Your task to perform on an android device: install app "Microsoft Outlook" Image 0: 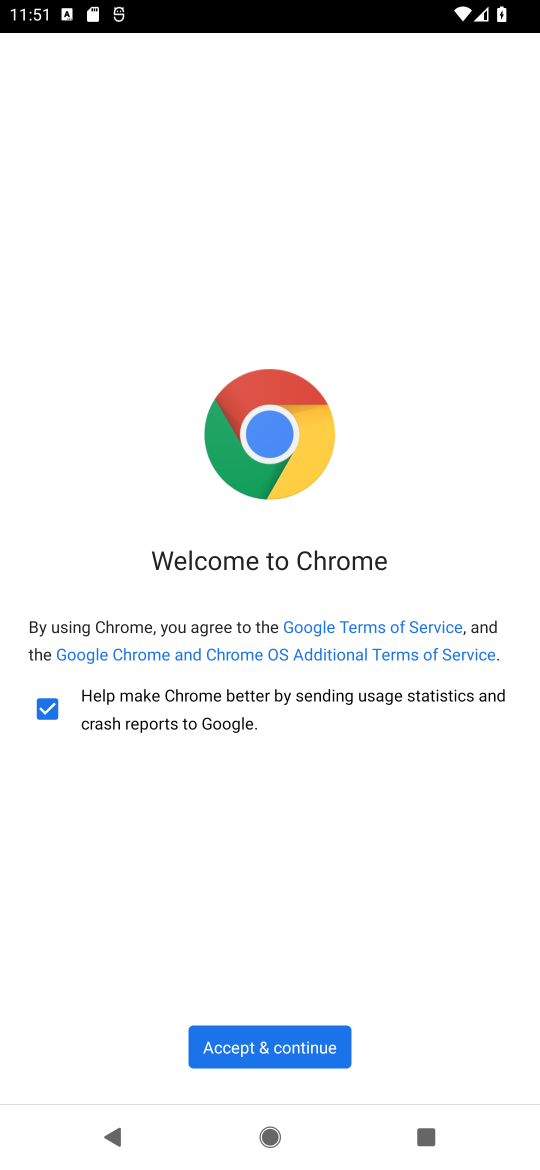
Step 0: press home button
Your task to perform on an android device: install app "Microsoft Outlook" Image 1: 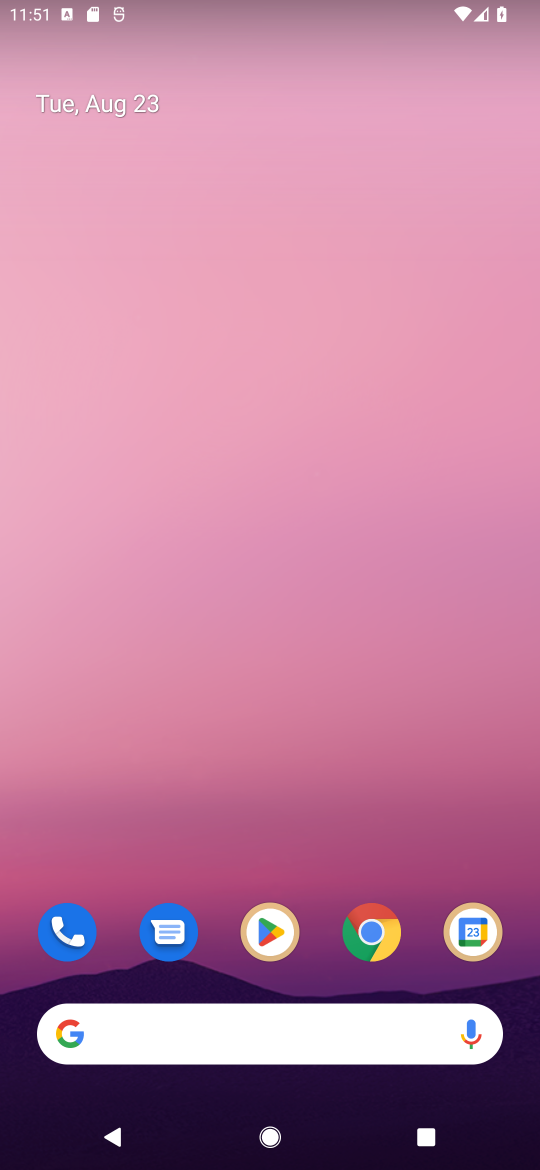
Step 1: click (259, 940)
Your task to perform on an android device: install app "Microsoft Outlook" Image 2: 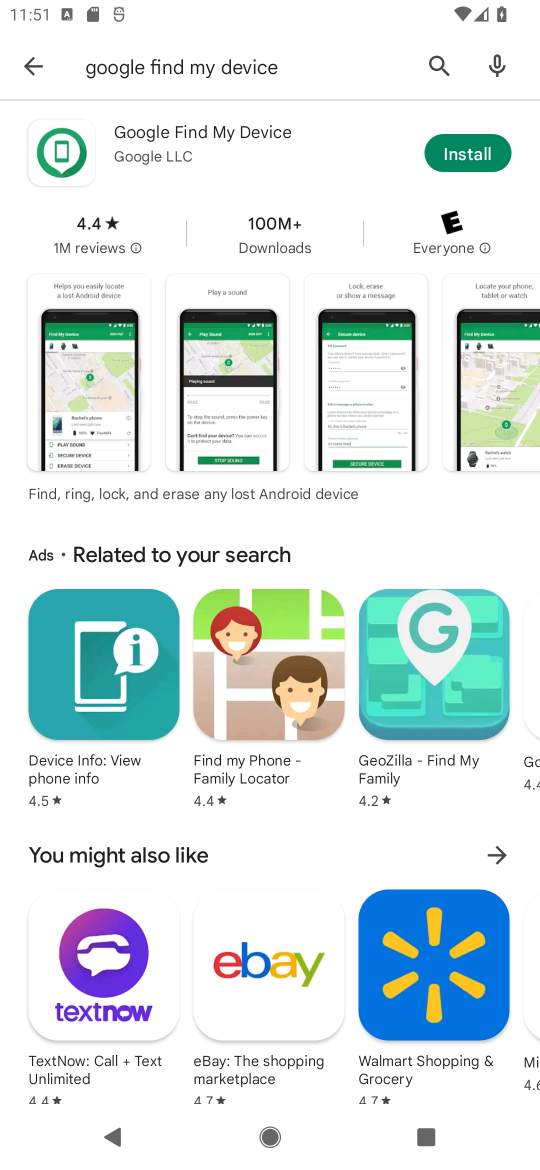
Step 2: click (431, 66)
Your task to perform on an android device: install app "Microsoft Outlook" Image 3: 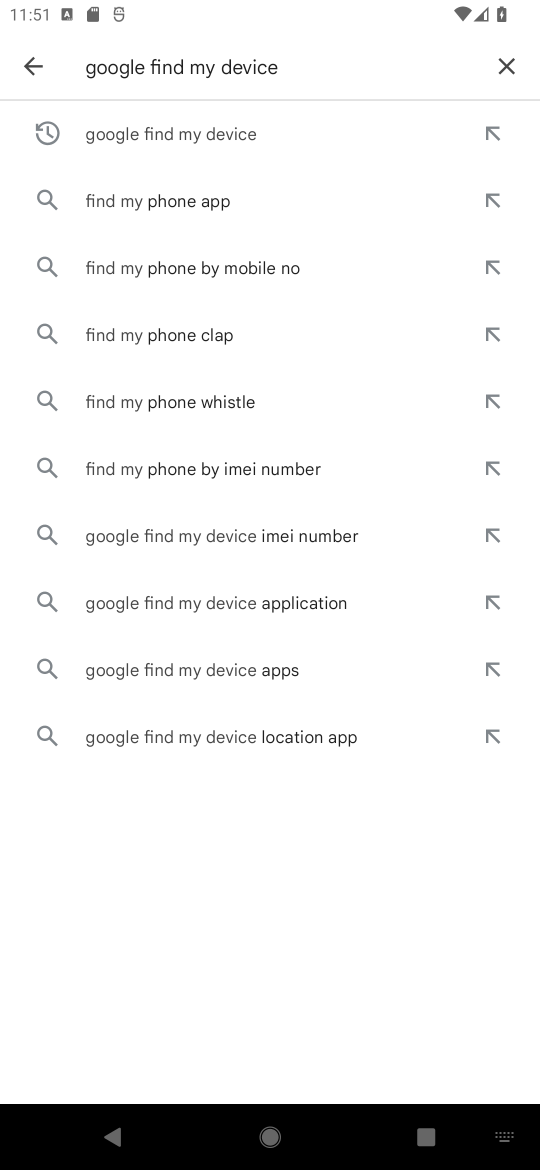
Step 3: click (490, 65)
Your task to perform on an android device: install app "Microsoft Outlook" Image 4: 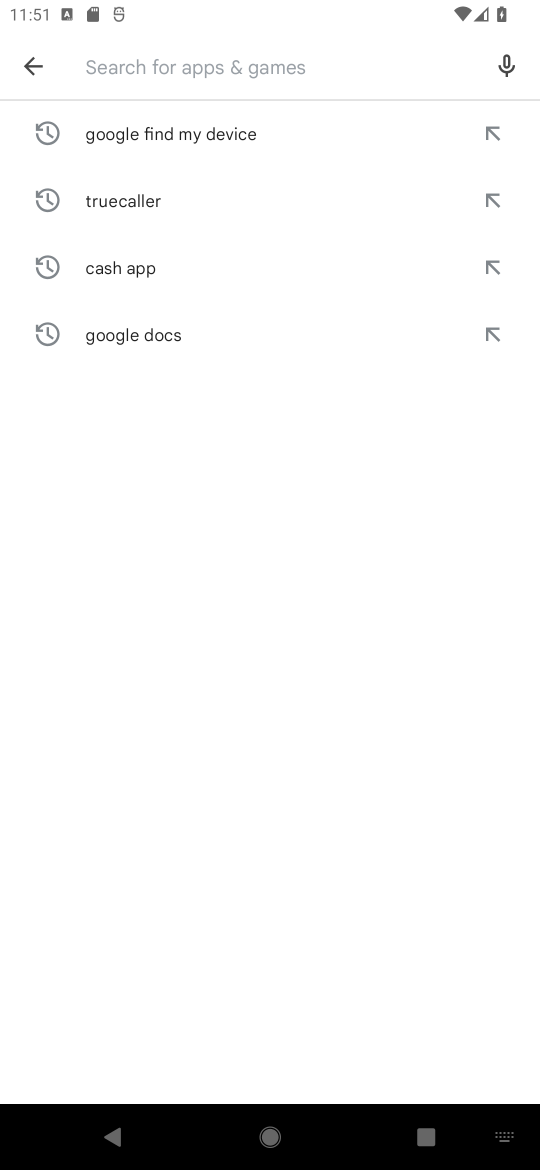
Step 4: click (133, 83)
Your task to perform on an android device: install app "Microsoft Outlook" Image 5: 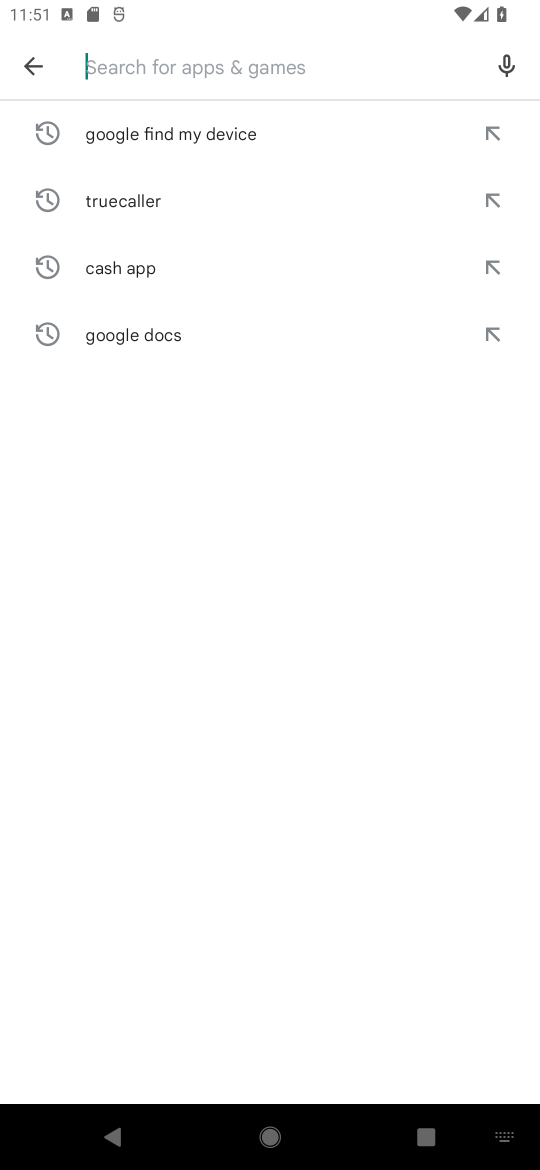
Step 5: click (133, 36)
Your task to perform on an android device: install app "Microsoft Outlook" Image 6: 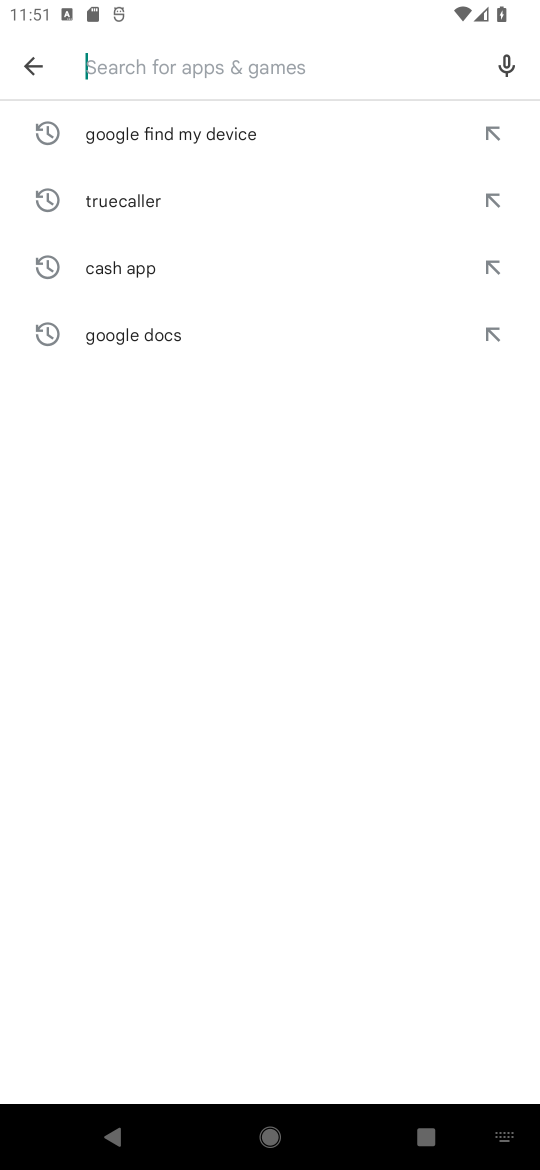
Step 6: type "Microsoft Outlook"
Your task to perform on an android device: install app "Microsoft Outlook" Image 7: 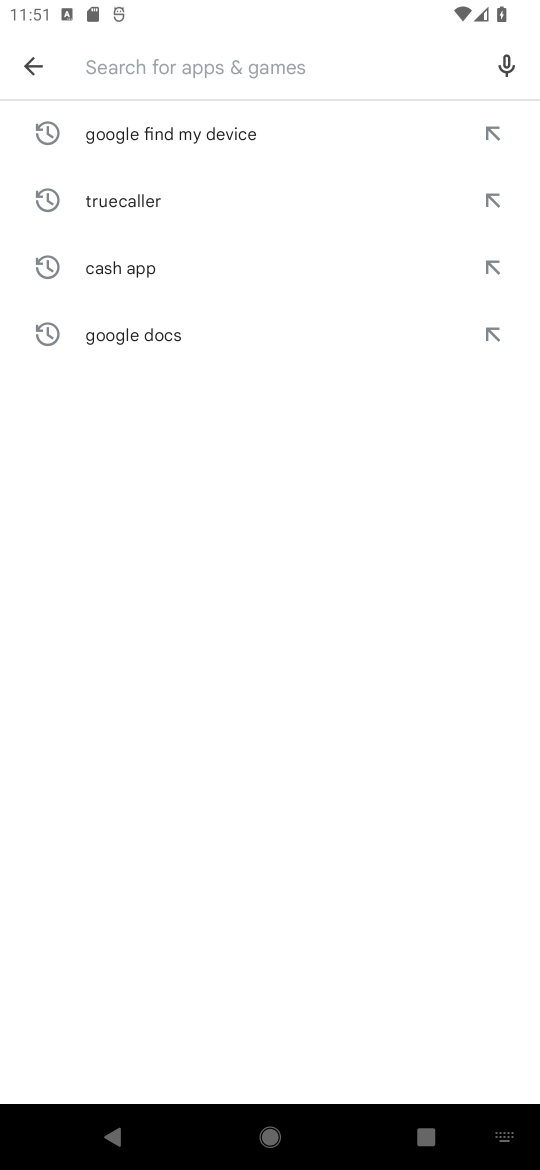
Step 7: click (251, 703)
Your task to perform on an android device: install app "Microsoft Outlook" Image 8: 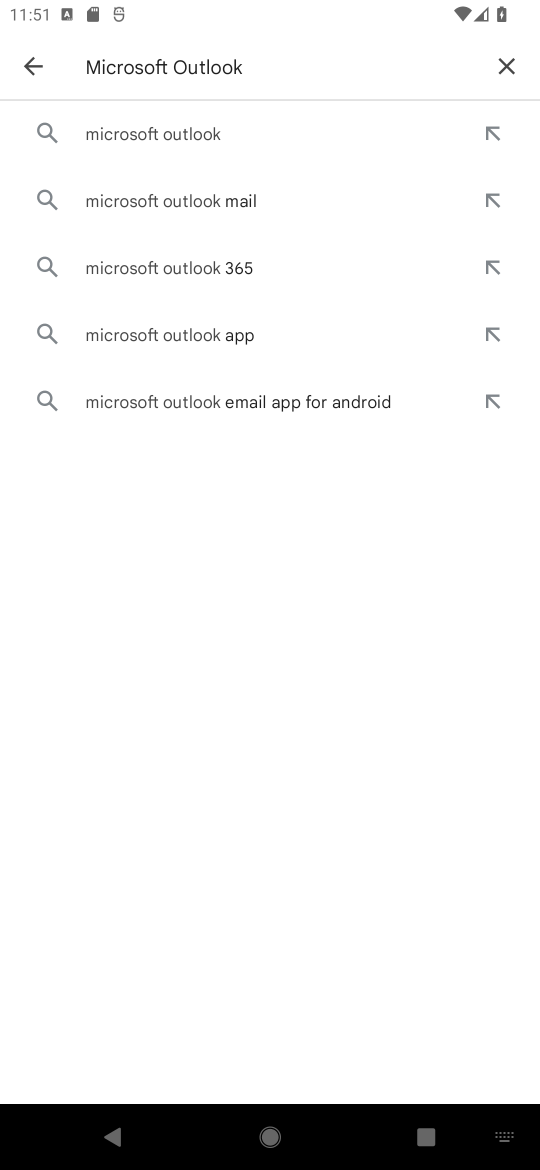
Step 8: click (158, 125)
Your task to perform on an android device: install app "Microsoft Outlook" Image 9: 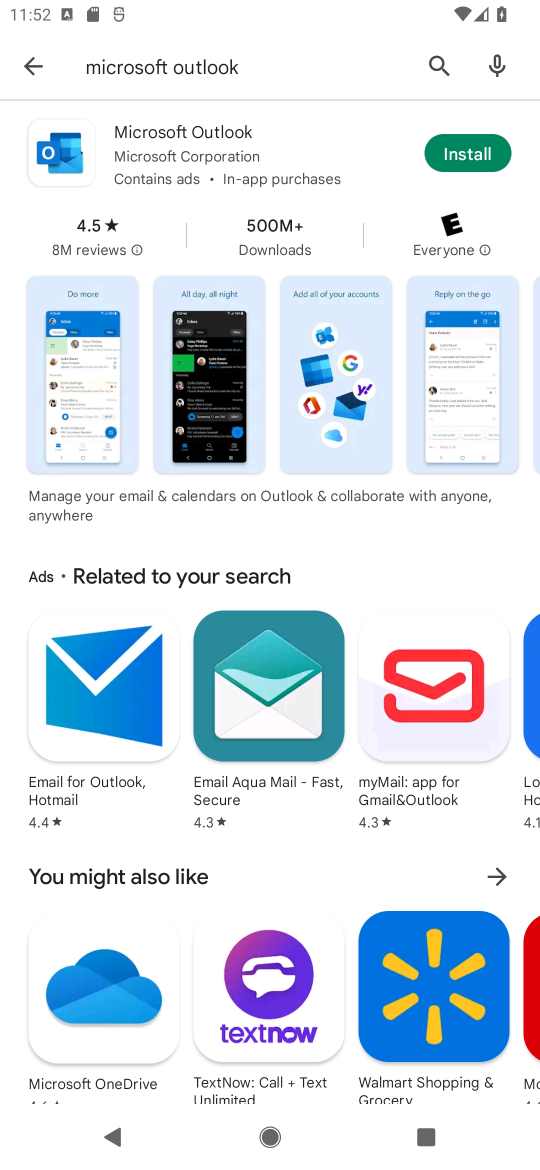
Step 9: click (439, 153)
Your task to perform on an android device: install app "Microsoft Outlook" Image 10: 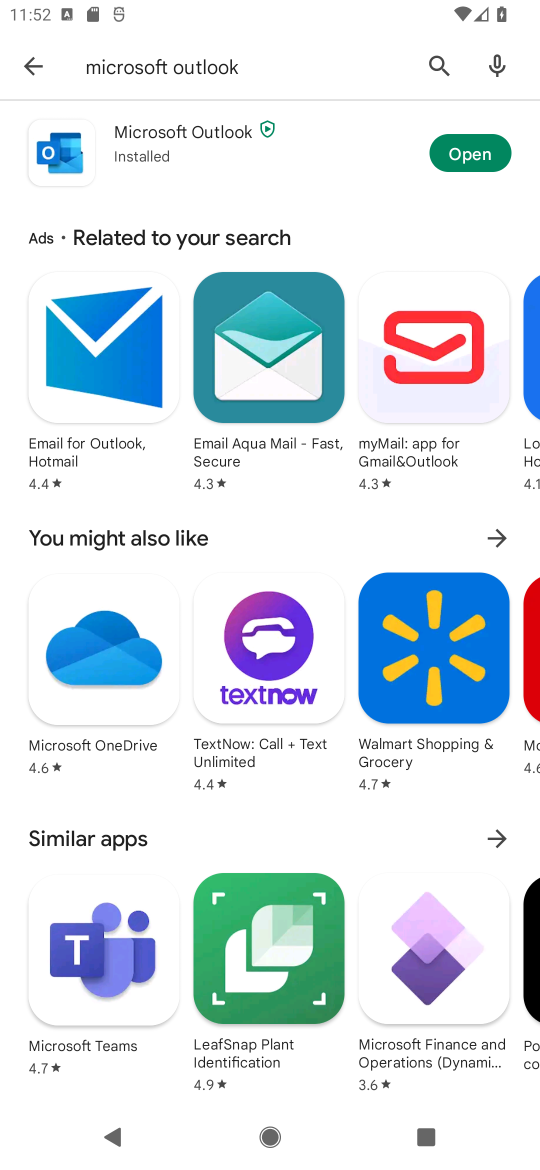
Step 10: task complete